Your task to perform on an android device: Turn off the flashlight Image 0: 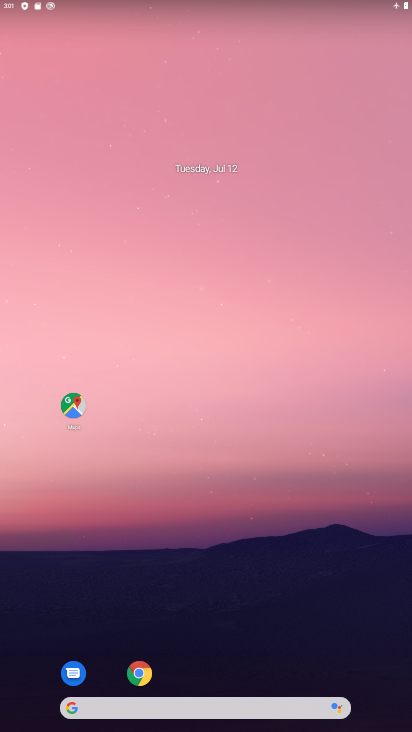
Step 0: drag from (170, 713) to (174, 148)
Your task to perform on an android device: Turn off the flashlight Image 1: 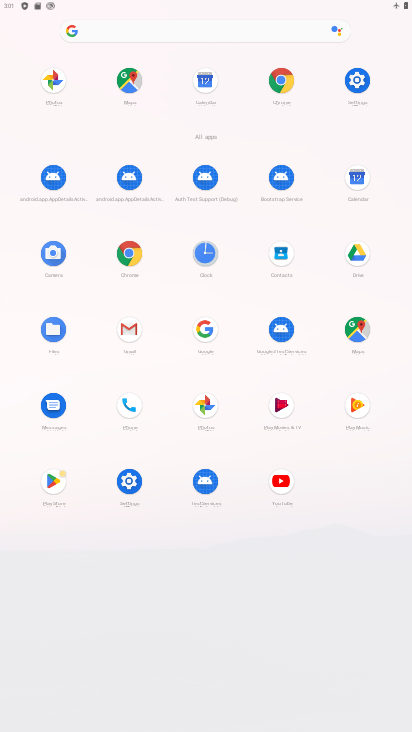
Step 1: click (358, 80)
Your task to perform on an android device: Turn off the flashlight Image 2: 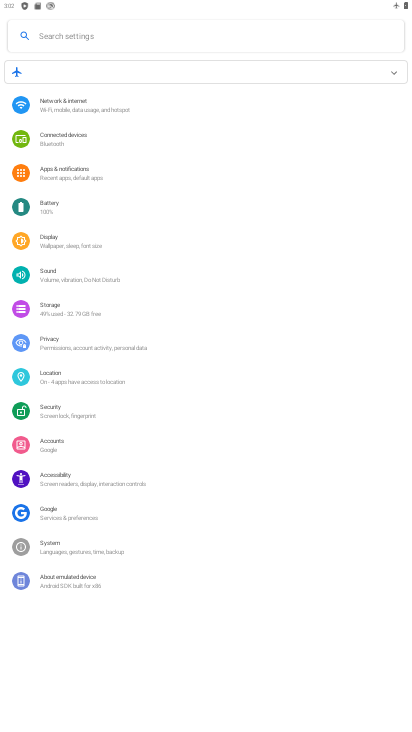
Step 2: click (77, 179)
Your task to perform on an android device: Turn off the flashlight Image 3: 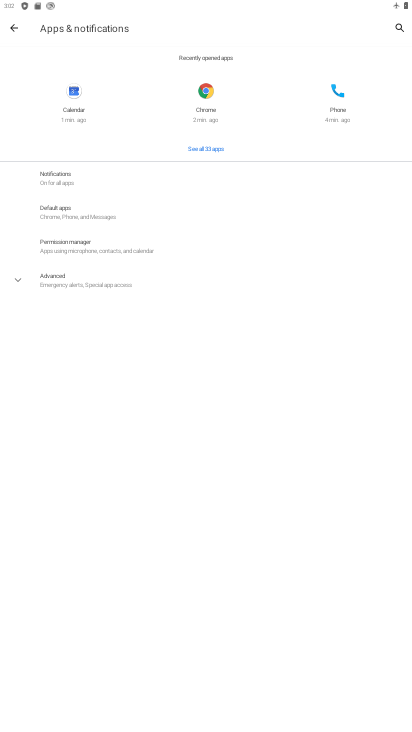
Step 3: click (96, 254)
Your task to perform on an android device: Turn off the flashlight Image 4: 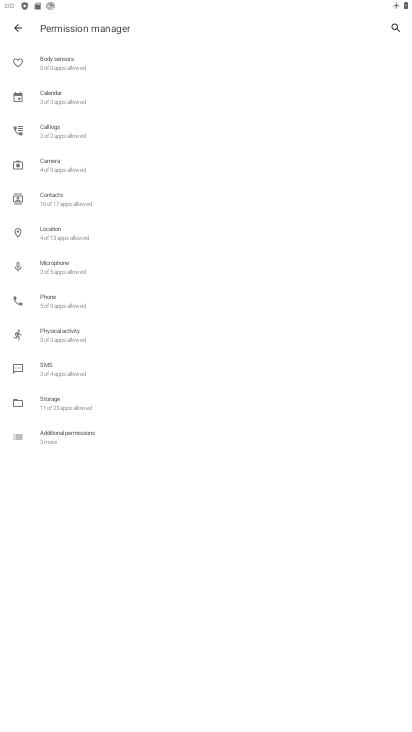
Step 4: press back button
Your task to perform on an android device: Turn off the flashlight Image 5: 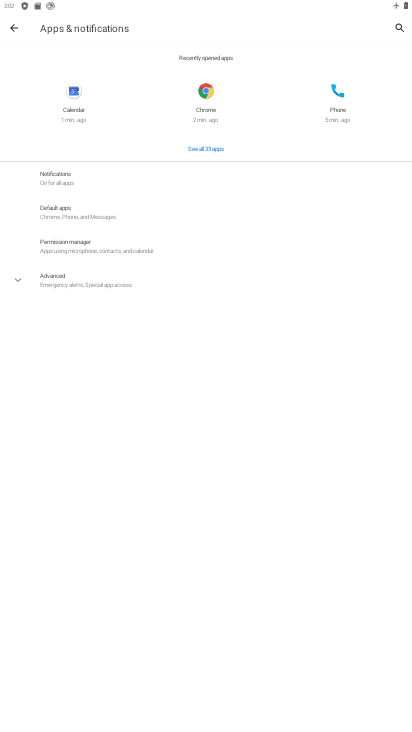
Step 5: press back button
Your task to perform on an android device: Turn off the flashlight Image 6: 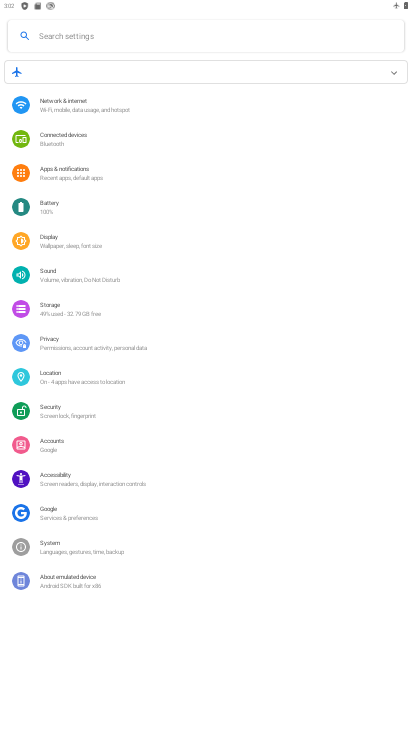
Step 6: click (94, 251)
Your task to perform on an android device: Turn off the flashlight Image 7: 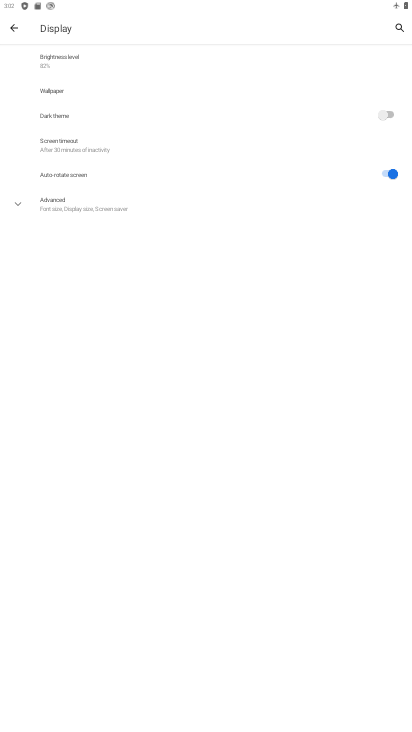
Step 7: click (112, 217)
Your task to perform on an android device: Turn off the flashlight Image 8: 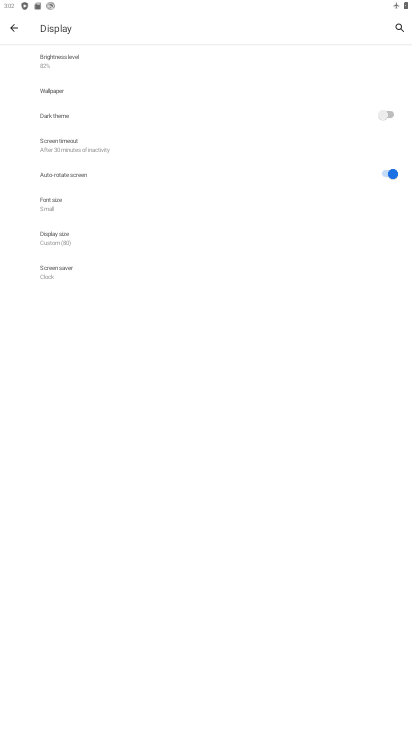
Step 8: task complete